Your task to perform on an android device: Go to Google maps Image 0: 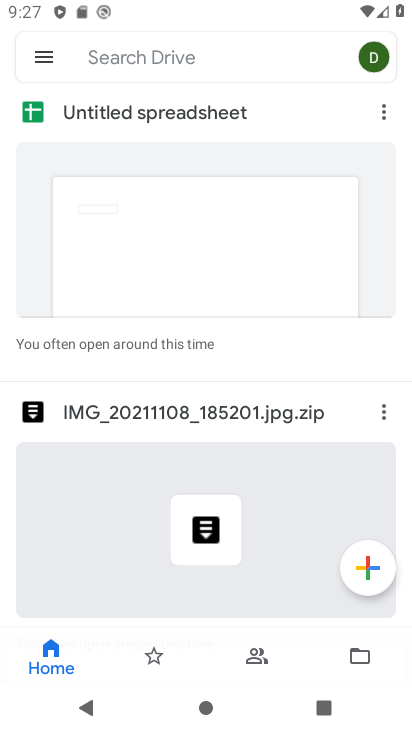
Step 0: press home button
Your task to perform on an android device: Go to Google maps Image 1: 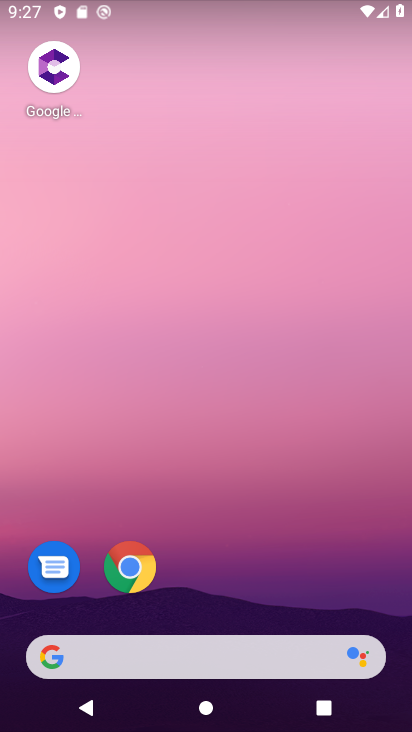
Step 1: drag from (285, 579) to (297, 128)
Your task to perform on an android device: Go to Google maps Image 2: 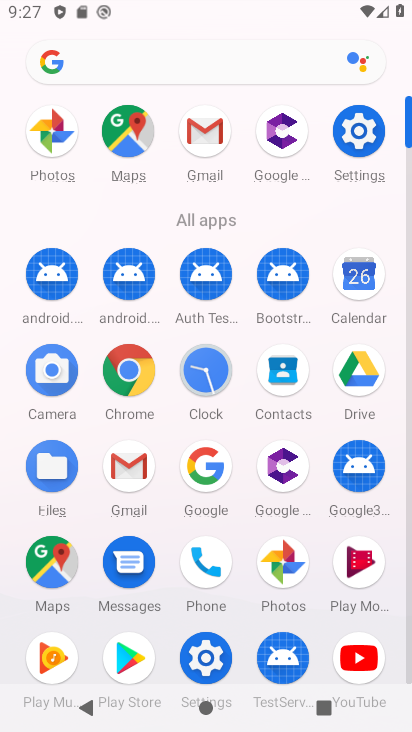
Step 2: drag from (263, 613) to (250, 156)
Your task to perform on an android device: Go to Google maps Image 3: 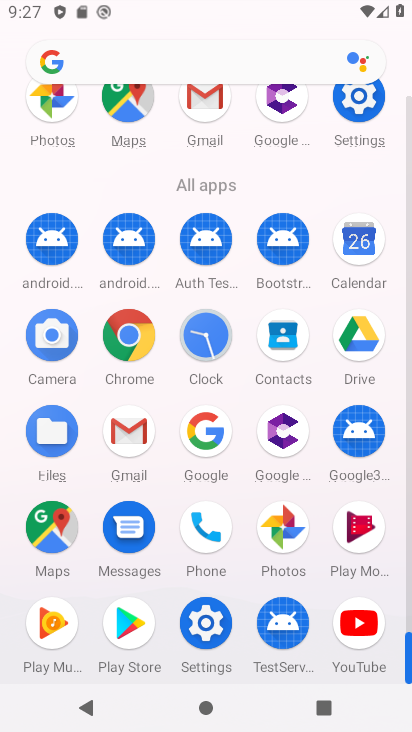
Step 3: click (64, 518)
Your task to perform on an android device: Go to Google maps Image 4: 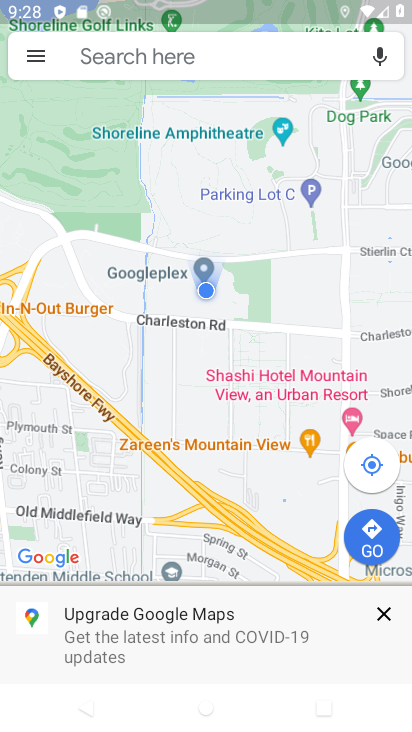
Step 4: task complete